Your task to perform on an android device: turn off sleep mode Image 0: 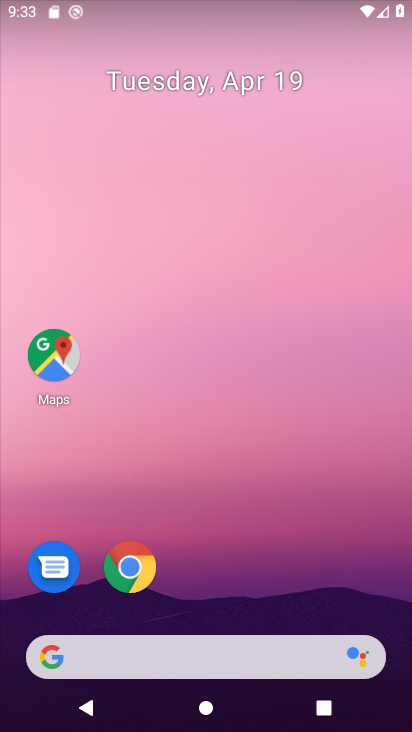
Step 0: drag from (236, 609) to (231, 13)
Your task to perform on an android device: turn off sleep mode Image 1: 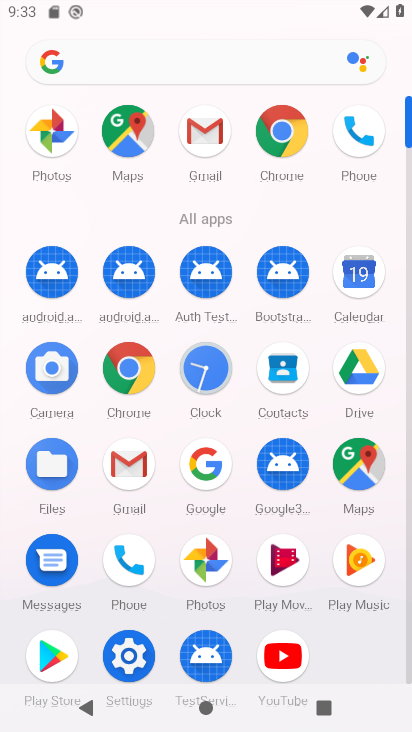
Step 1: click (140, 651)
Your task to perform on an android device: turn off sleep mode Image 2: 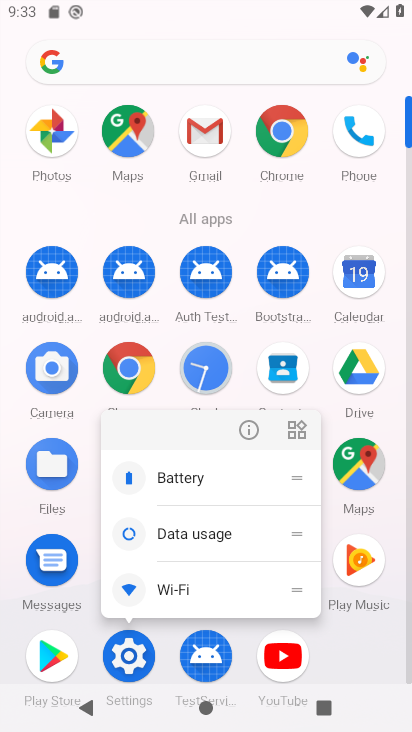
Step 2: click (140, 651)
Your task to perform on an android device: turn off sleep mode Image 3: 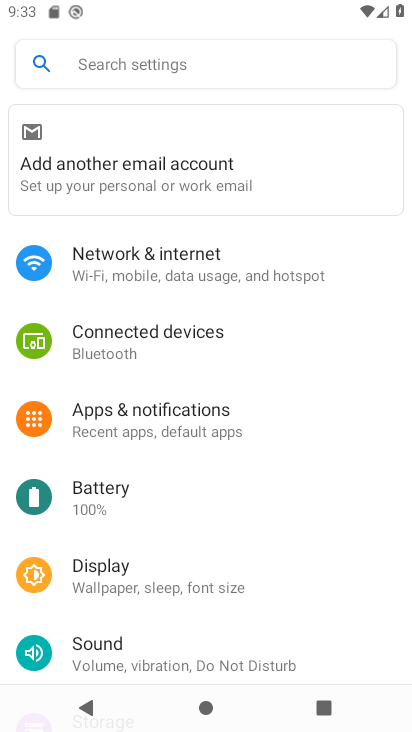
Step 3: drag from (194, 480) to (191, 350)
Your task to perform on an android device: turn off sleep mode Image 4: 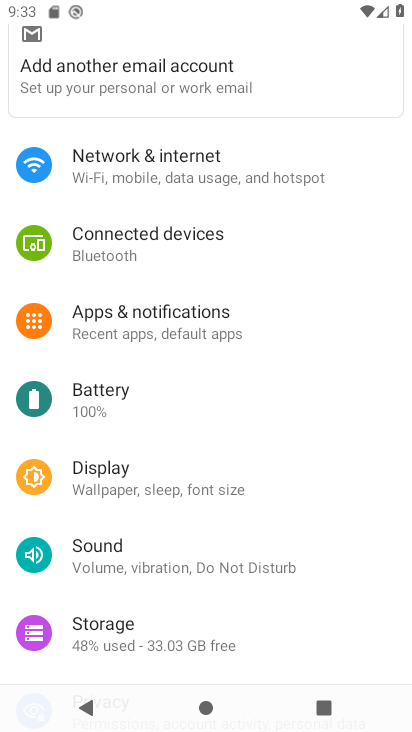
Step 4: drag from (218, 508) to (254, 422)
Your task to perform on an android device: turn off sleep mode Image 5: 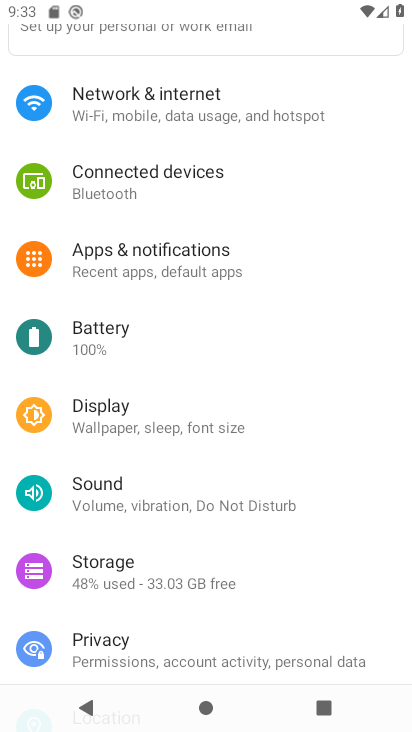
Step 5: click (252, 426)
Your task to perform on an android device: turn off sleep mode Image 6: 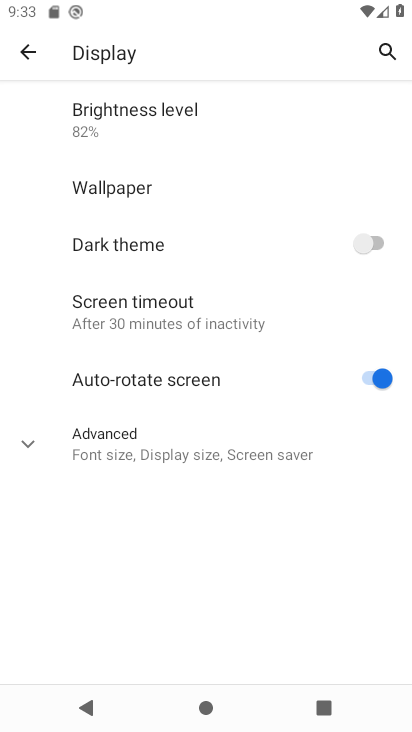
Step 6: click (239, 447)
Your task to perform on an android device: turn off sleep mode Image 7: 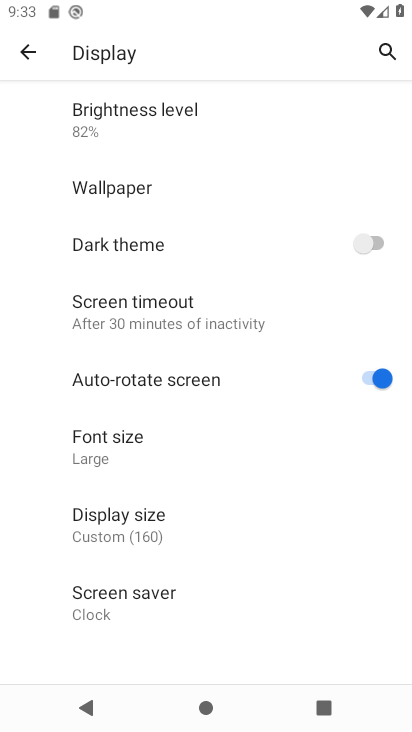
Step 7: drag from (194, 526) to (225, 418)
Your task to perform on an android device: turn off sleep mode Image 8: 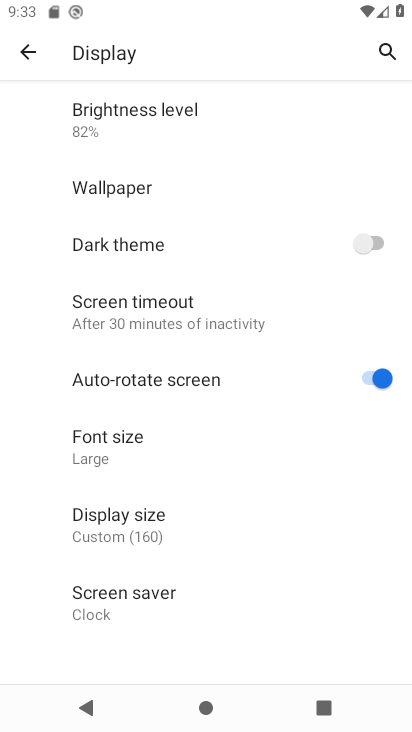
Step 8: click (22, 49)
Your task to perform on an android device: turn off sleep mode Image 9: 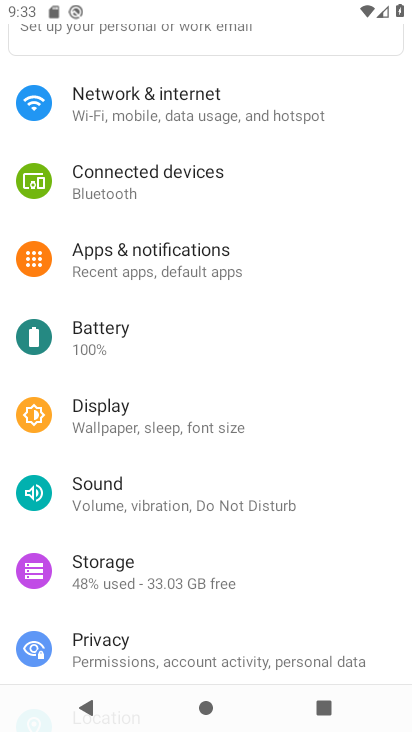
Step 9: task complete